Your task to perform on an android device: empty trash in the gmail app Image 0: 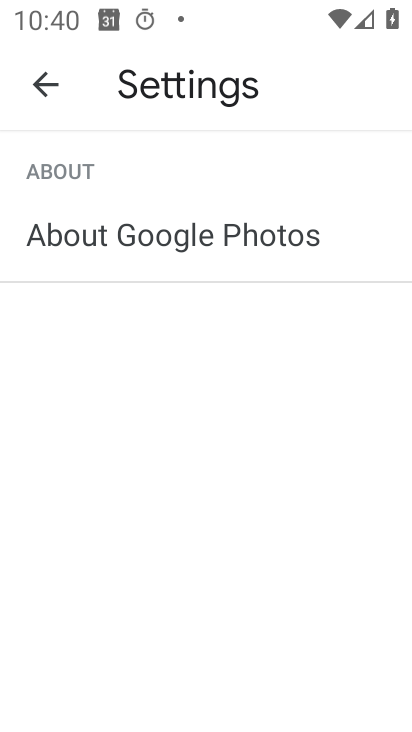
Step 0: press home button
Your task to perform on an android device: empty trash in the gmail app Image 1: 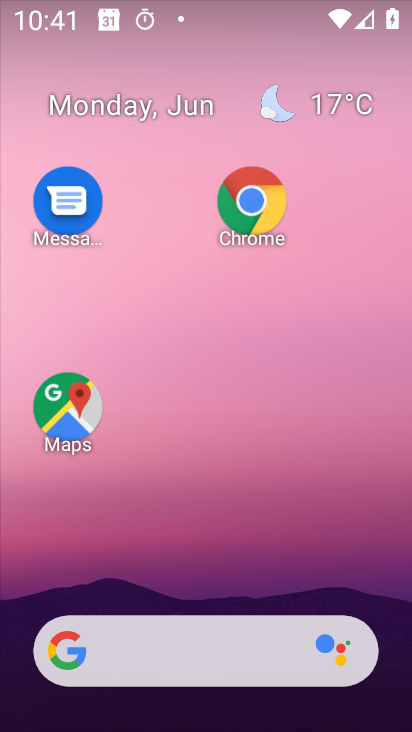
Step 1: drag from (207, 602) to (394, 42)
Your task to perform on an android device: empty trash in the gmail app Image 2: 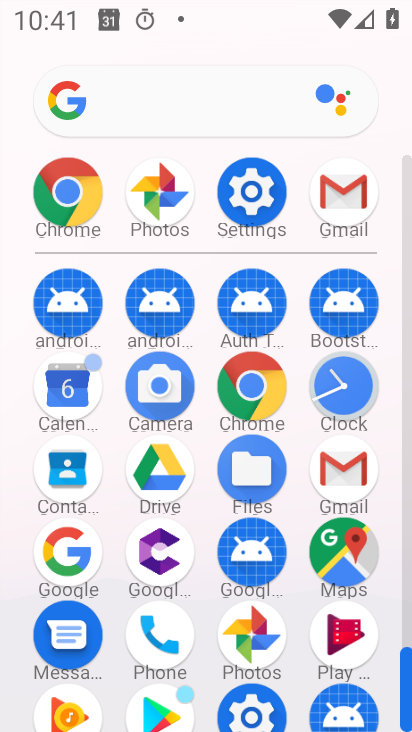
Step 2: click (326, 475)
Your task to perform on an android device: empty trash in the gmail app Image 3: 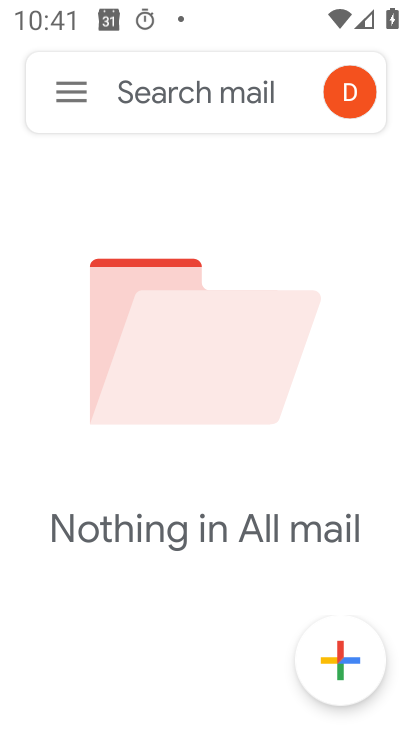
Step 3: click (66, 95)
Your task to perform on an android device: empty trash in the gmail app Image 4: 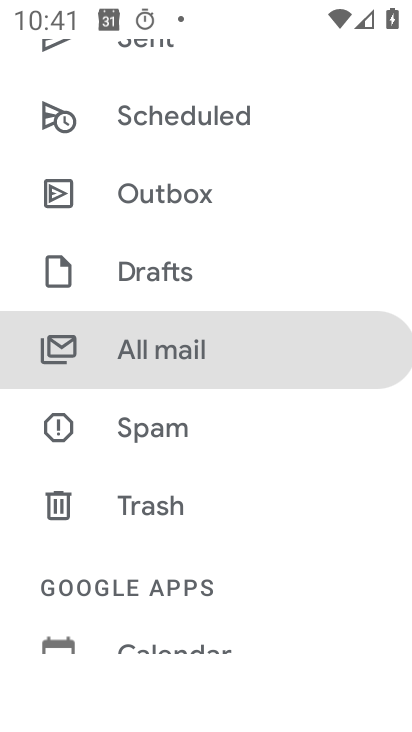
Step 4: click (105, 502)
Your task to perform on an android device: empty trash in the gmail app Image 5: 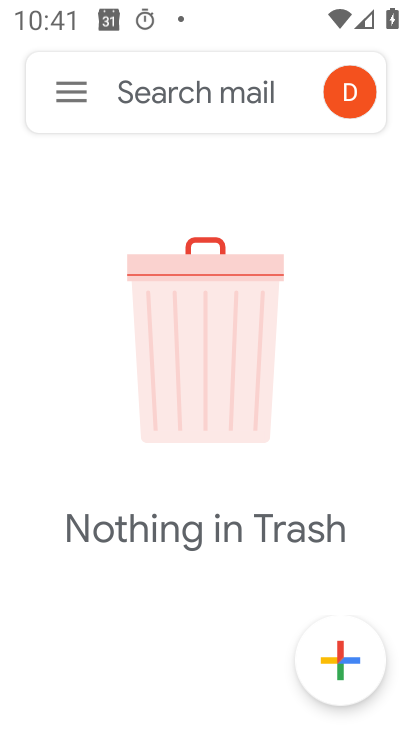
Step 5: task complete